Your task to perform on an android device: Search for Italian restaurants on Maps Image 0: 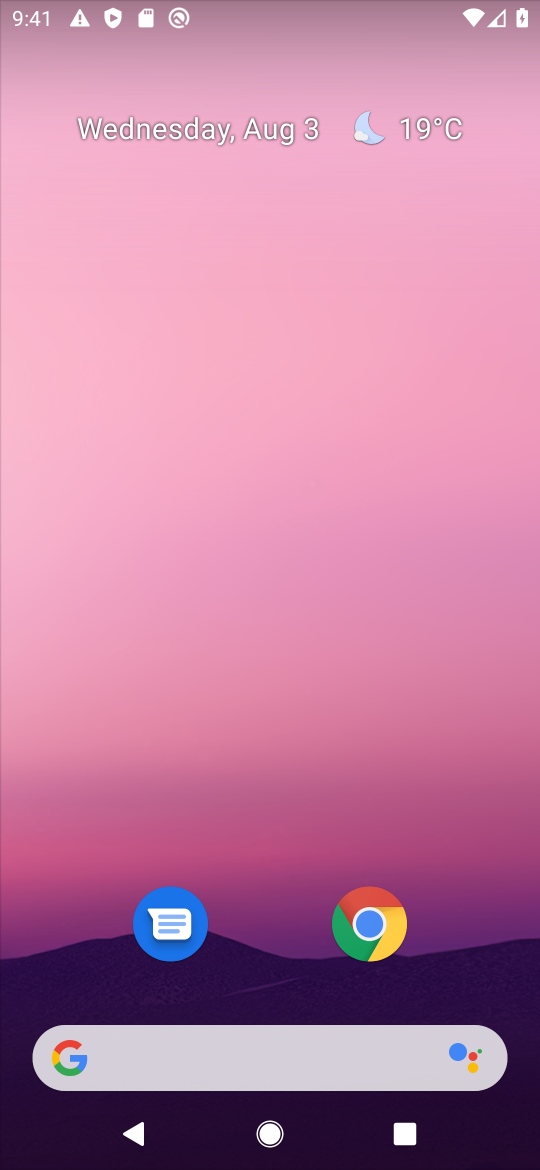
Step 0: drag from (281, 980) to (317, 147)
Your task to perform on an android device: Search for Italian restaurants on Maps Image 1: 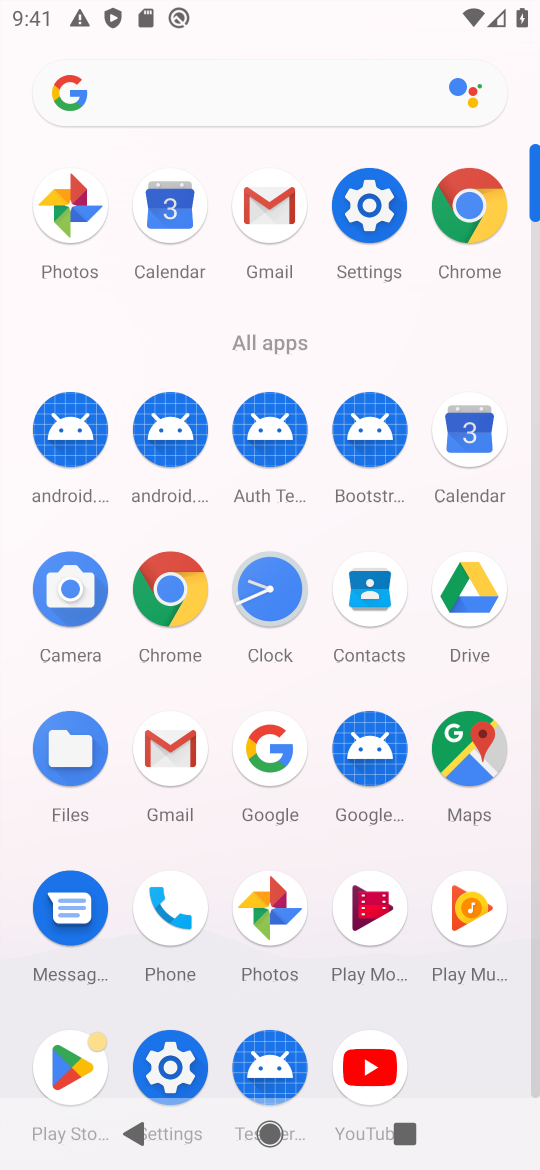
Step 1: click (466, 740)
Your task to perform on an android device: Search for Italian restaurants on Maps Image 2: 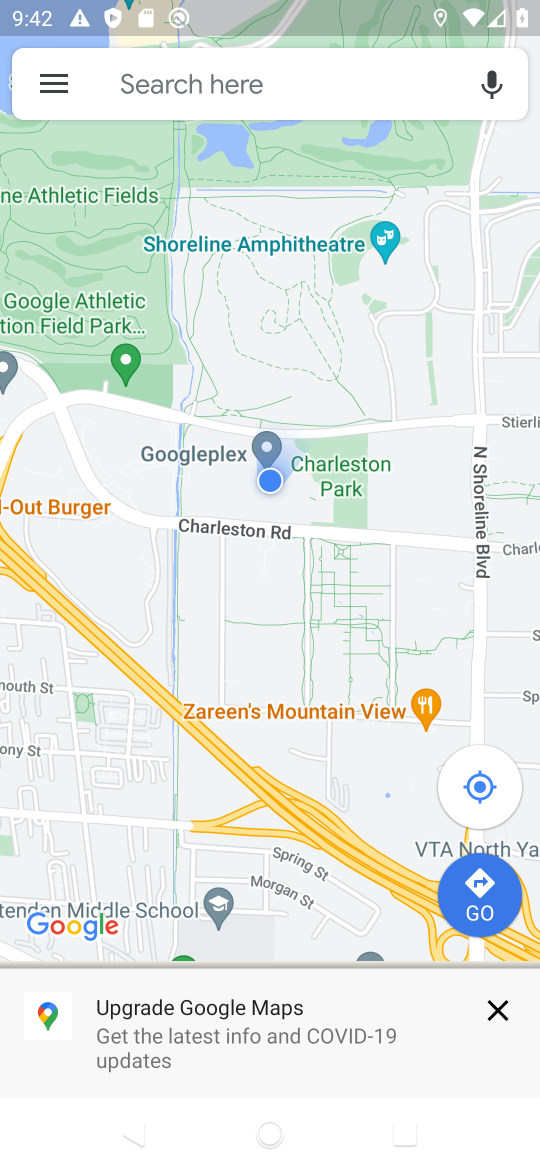
Step 2: click (490, 1005)
Your task to perform on an android device: Search for Italian restaurants on Maps Image 3: 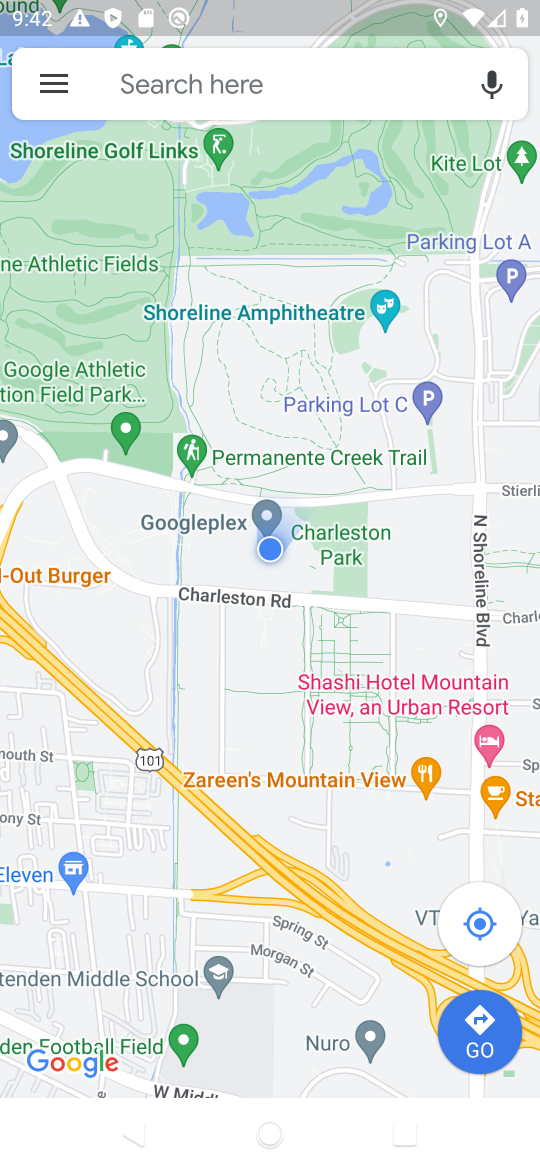
Step 3: click (170, 81)
Your task to perform on an android device: Search for Italian restaurants on Maps Image 4: 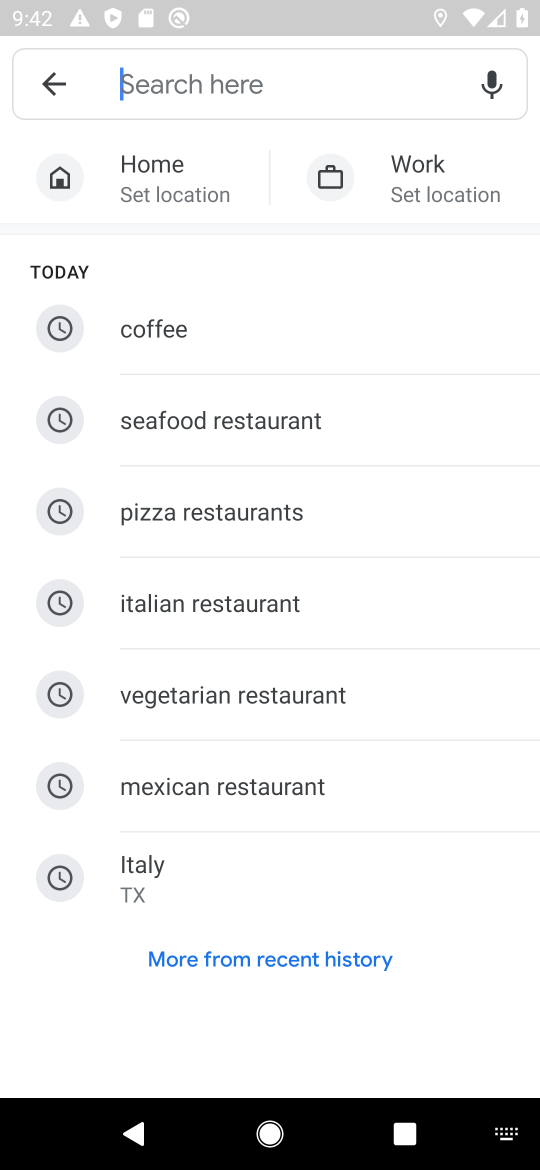
Step 4: click (316, 596)
Your task to perform on an android device: Search for Italian restaurants on Maps Image 5: 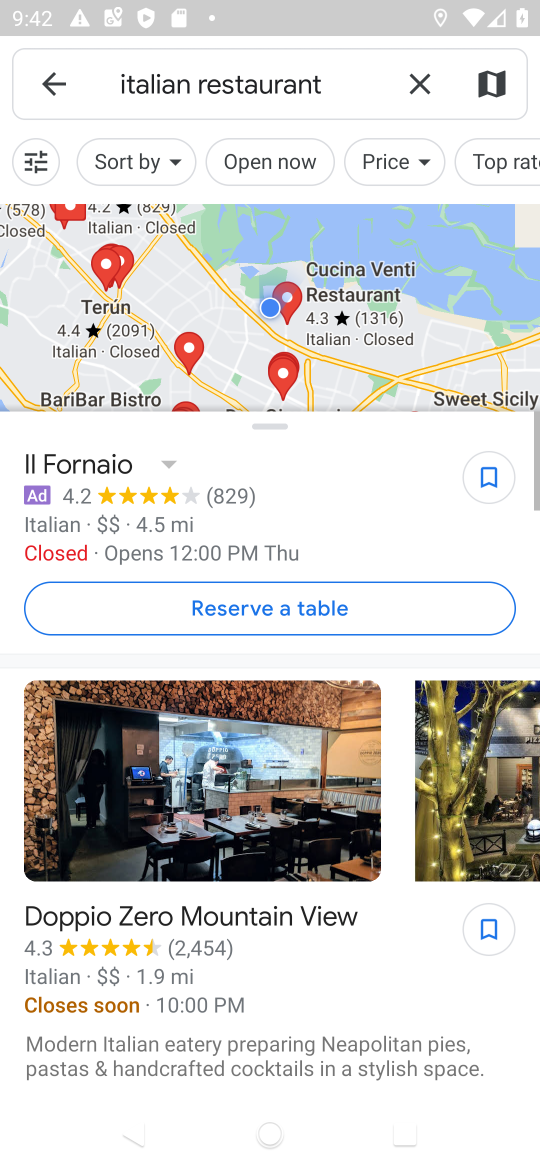
Step 5: task complete